Your task to perform on an android device: Go to Maps Image 0: 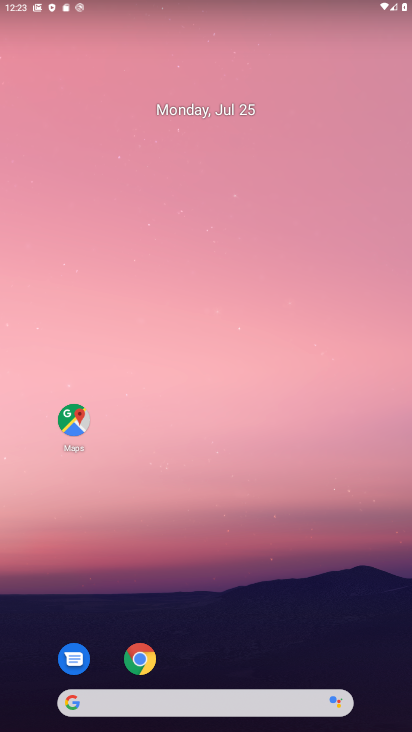
Step 0: drag from (238, 652) to (250, 207)
Your task to perform on an android device: Go to Maps Image 1: 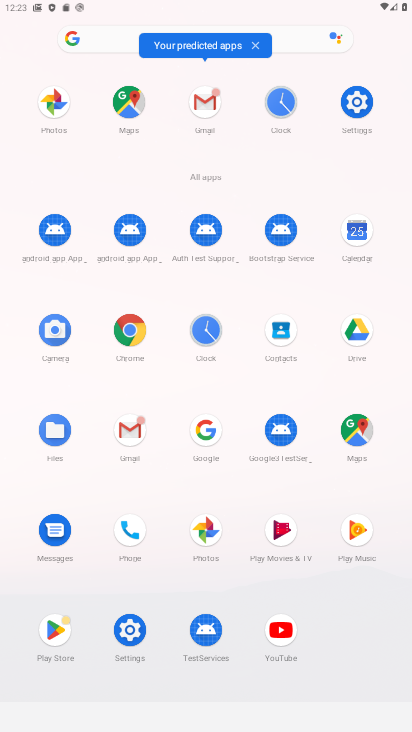
Step 1: click (131, 114)
Your task to perform on an android device: Go to Maps Image 2: 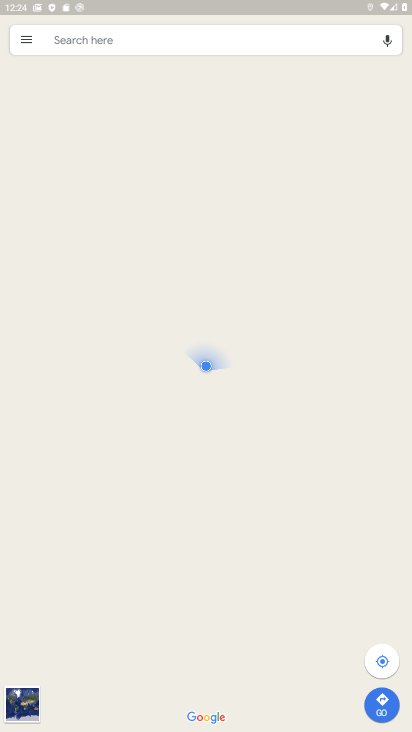
Step 2: task complete